Your task to perform on an android device: Do I have any events this weekend? Image 0: 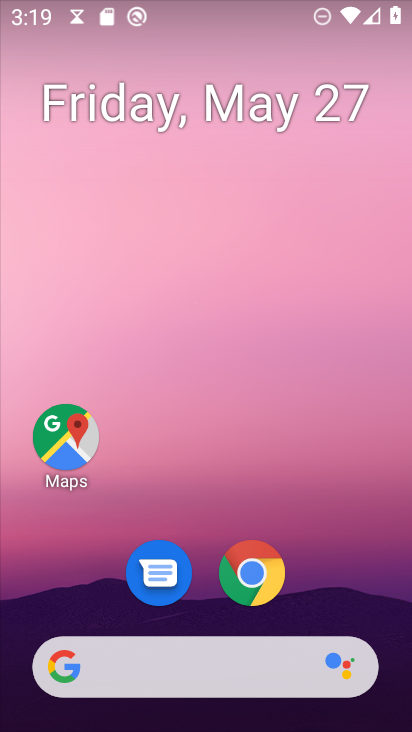
Step 0: drag from (325, 606) to (299, 132)
Your task to perform on an android device: Do I have any events this weekend? Image 1: 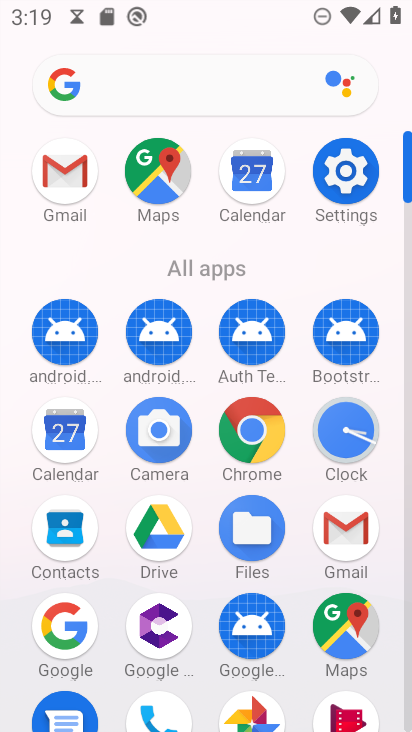
Step 1: click (60, 435)
Your task to perform on an android device: Do I have any events this weekend? Image 2: 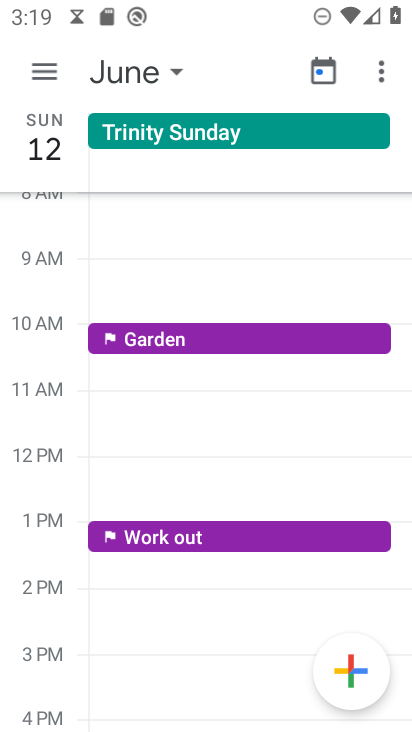
Step 2: click (164, 84)
Your task to perform on an android device: Do I have any events this weekend? Image 3: 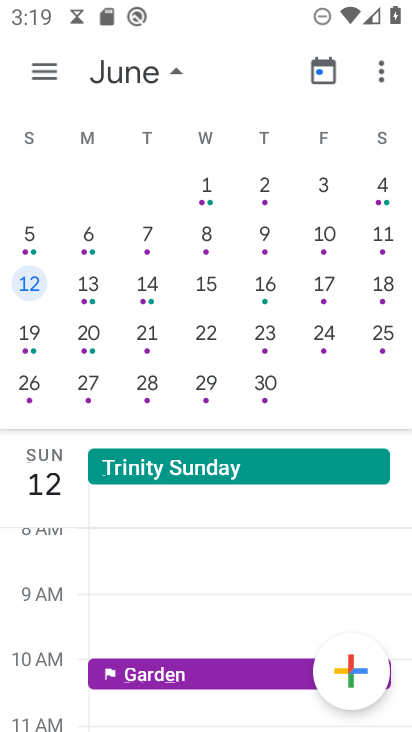
Step 3: drag from (149, 278) to (405, 275)
Your task to perform on an android device: Do I have any events this weekend? Image 4: 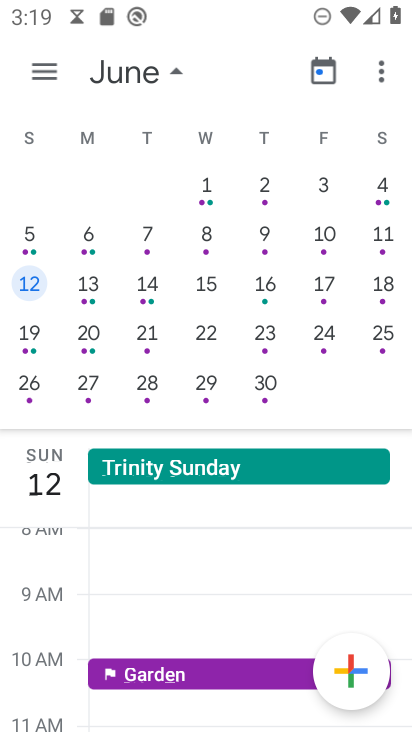
Step 4: drag from (54, 279) to (391, 342)
Your task to perform on an android device: Do I have any events this weekend? Image 5: 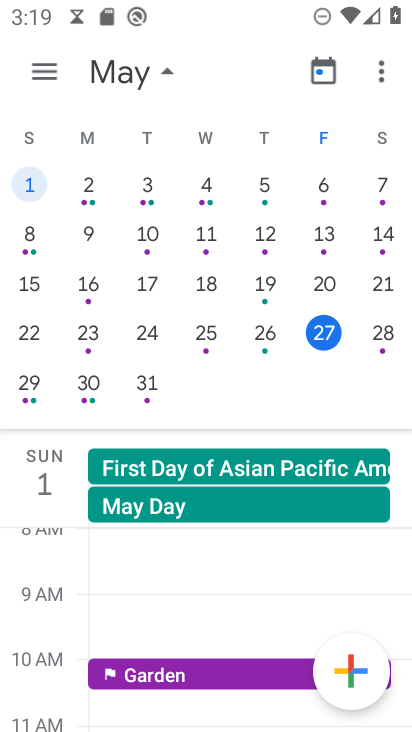
Step 5: click (374, 336)
Your task to perform on an android device: Do I have any events this weekend? Image 6: 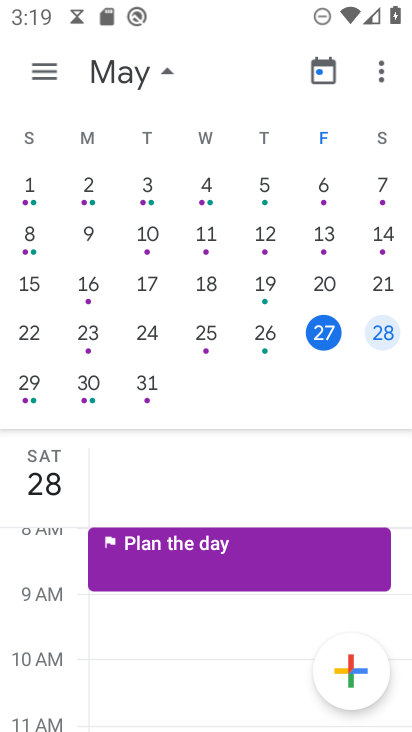
Step 6: drag from (51, 589) to (161, 167)
Your task to perform on an android device: Do I have any events this weekend? Image 7: 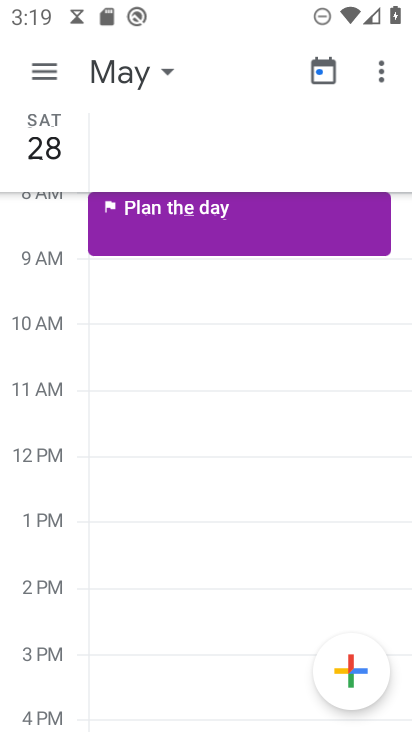
Step 7: drag from (57, 627) to (102, 112)
Your task to perform on an android device: Do I have any events this weekend? Image 8: 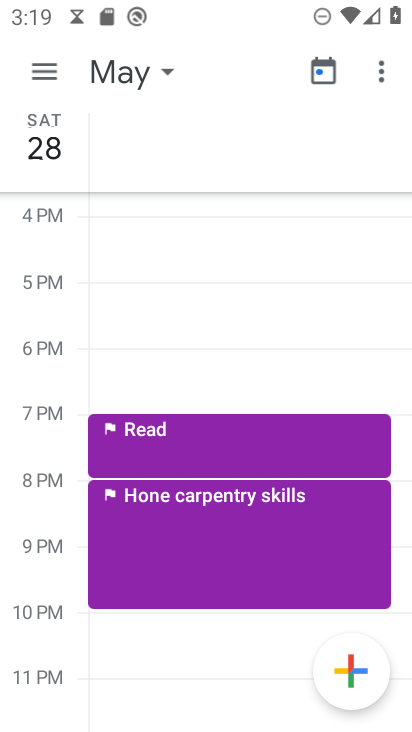
Step 8: drag from (73, 602) to (65, 24)
Your task to perform on an android device: Do I have any events this weekend? Image 9: 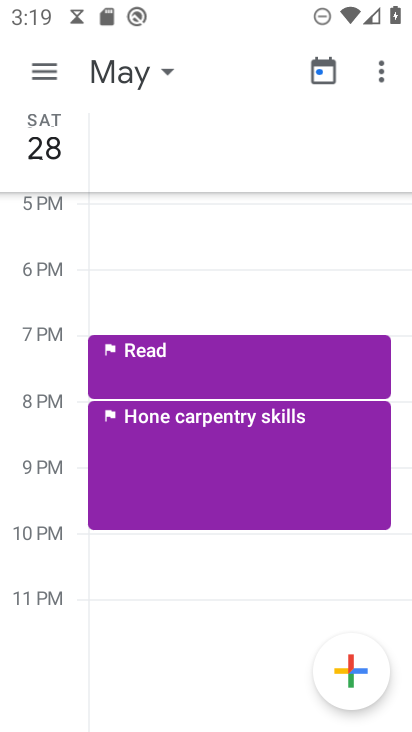
Step 9: drag from (50, 608) to (36, 174)
Your task to perform on an android device: Do I have any events this weekend? Image 10: 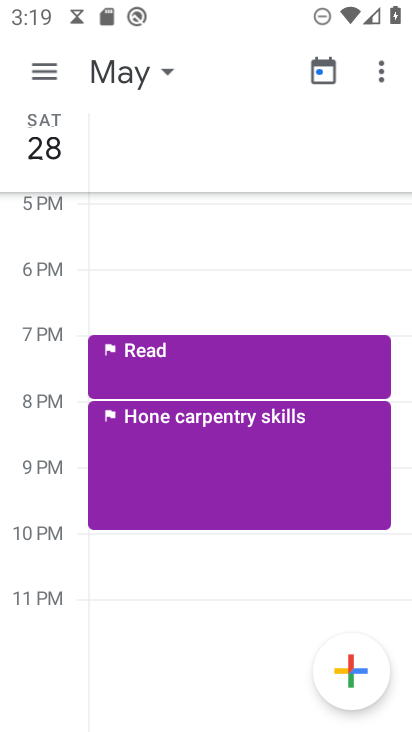
Step 10: click (67, 75)
Your task to perform on an android device: Do I have any events this weekend? Image 11: 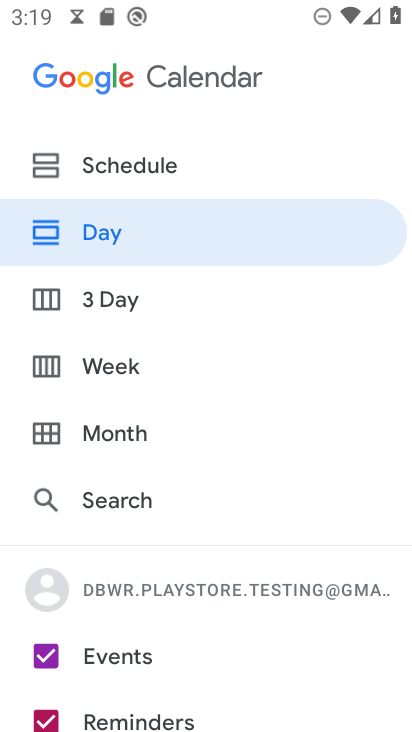
Step 11: click (142, 151)
Your task to perform on an android device: Do I have any events this weekend? Image 12: 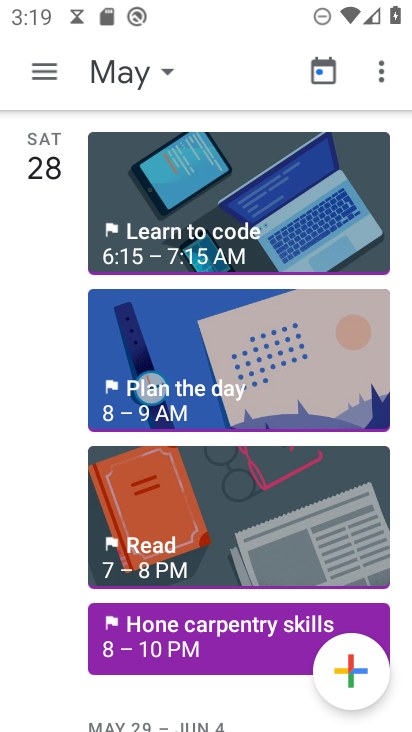
Step 12: task complete